Your task to perform on an android device: Go to wifi settings Image 0: 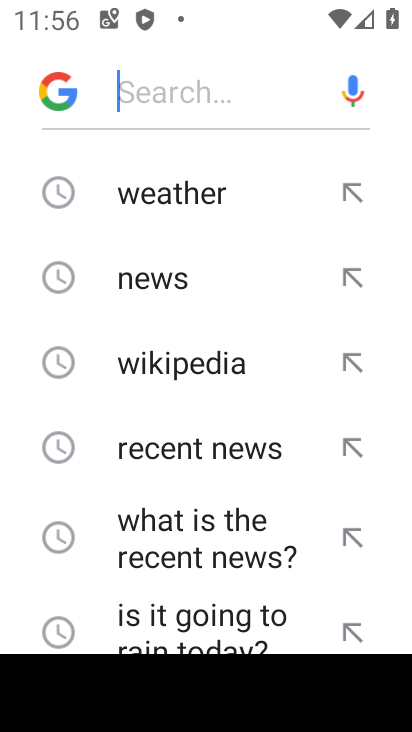
Step 0: press home button
Your task to perform on an android device: Go to wifi settings Image 1: 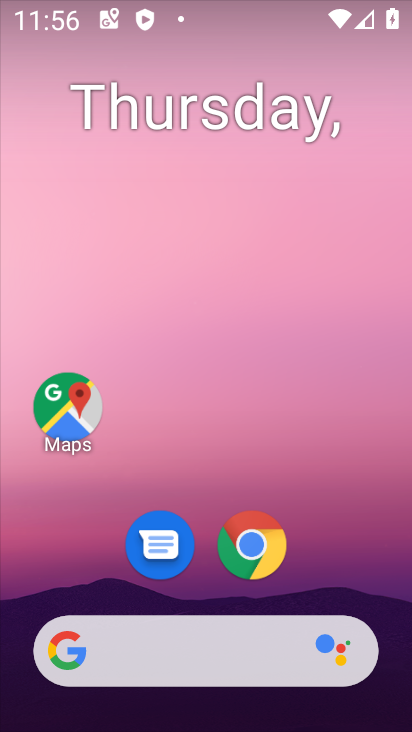
Step 1: drag from (344, 585) to (278, 207)
Your task to perform on an android device: Go to wifi settings Image 2: 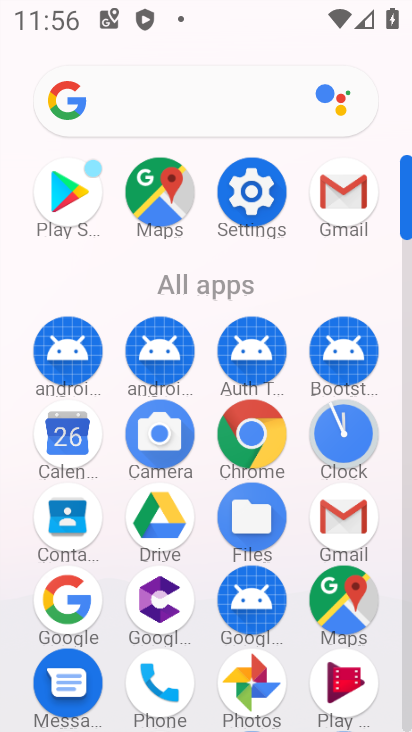
Step 2: click (254, 182)
Your task to perform on an android device: Go to wifi settings Image 3: 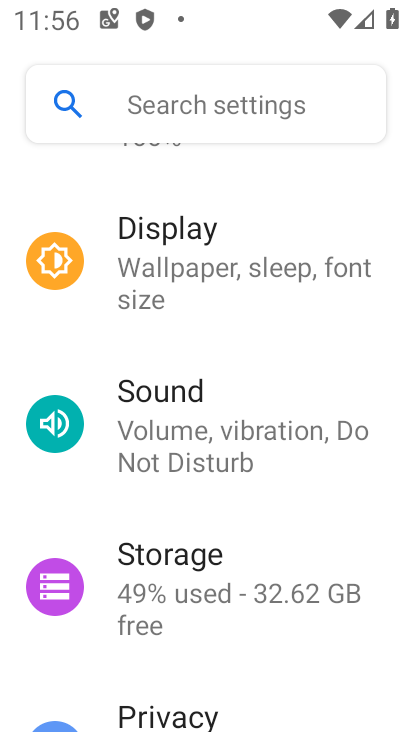
Step 3: drag from (215, 202) to (216, 666)
Your task to perform on an android device: Go to wifi settings Image 4: 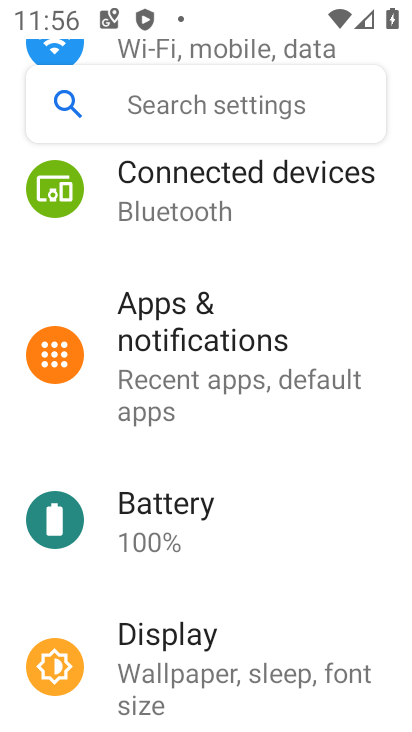
Step 4: drag from (203, 217) to (195, 608)
Your task to perform on an android device: Go to wifi settings Image 5: 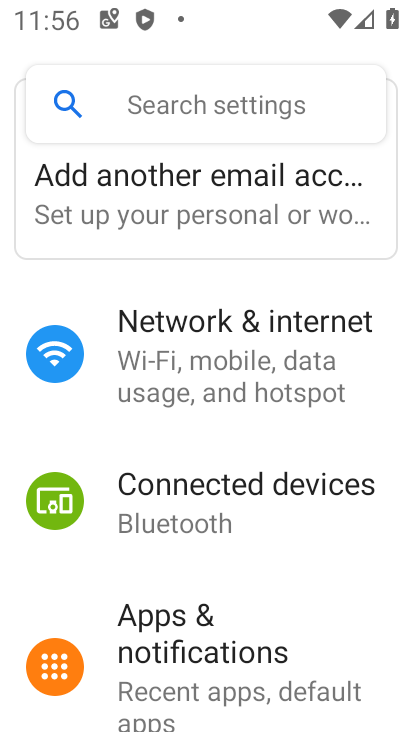
Step 5: click (165, 338)
Your task to perform on an android device: Go to wifi settings Image 6: 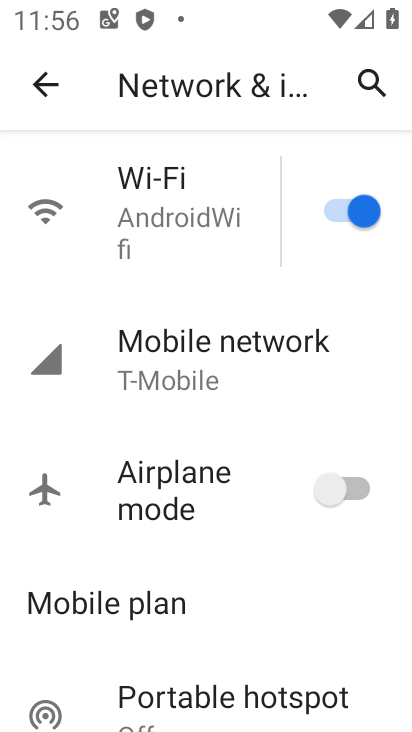
Step 6: task complete